Your task to perform on an android device: see tabs open on other devices in the chrome app Image 0: 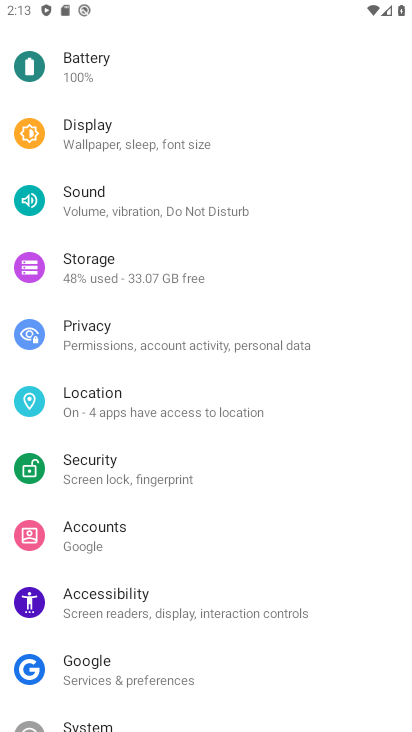
Step 0: press home button
Your task to perform on an android device: see tabs open on other devices in the chrome app Image 1: 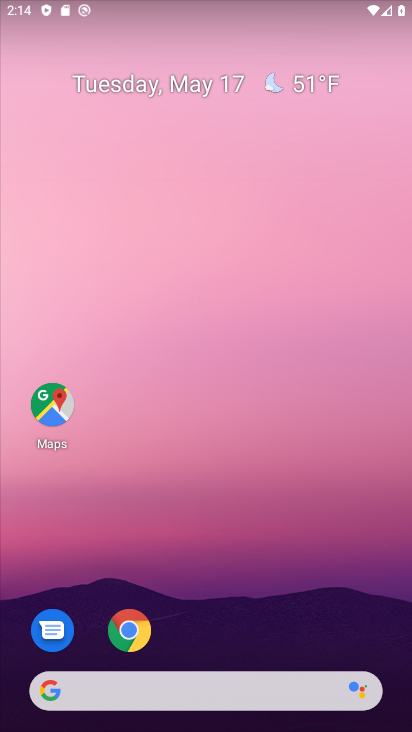
Step 1: click (133, 641)
Your task to perform on an android device: see tabs open on other devices in the chrome app Image 2: 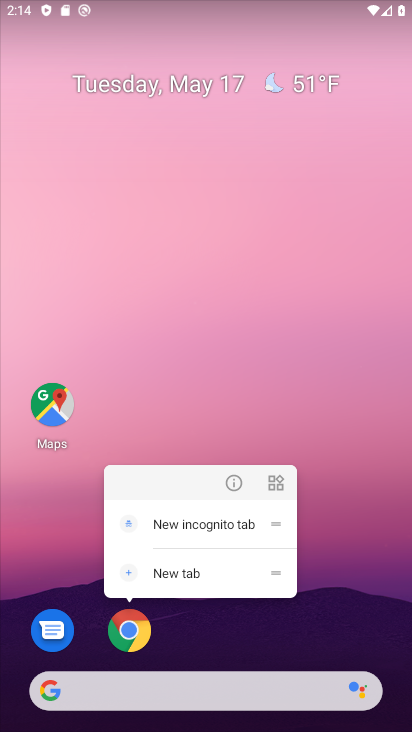
Step 2: click (125, 616)
Your task to perform on an android device: see tabs open on other devices in the chrome app Image 3: 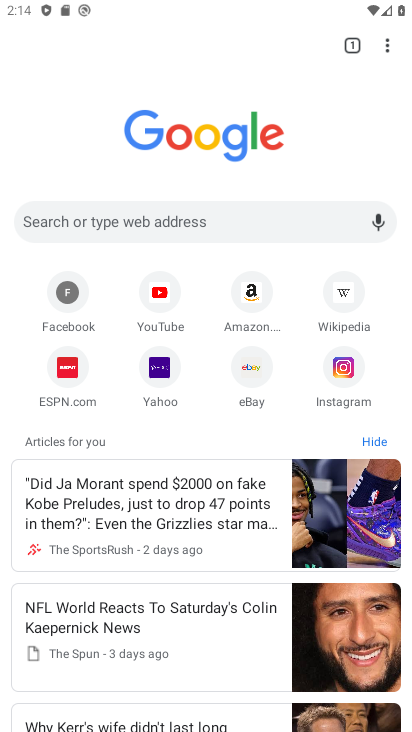
Step 3: click (393, 50)
Your task to perform on an android device: see tabs open on other devices in the chrome app Image 4: 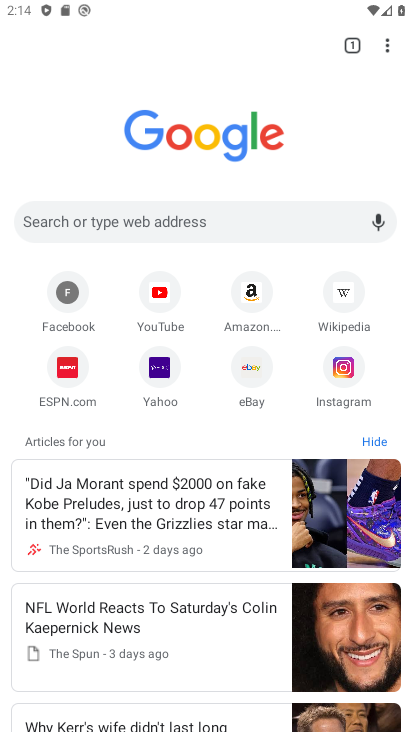
Step 4: click (386, 44)
Your task to perform on an android device: see tabs open on other devices in the chrome app Image 5: 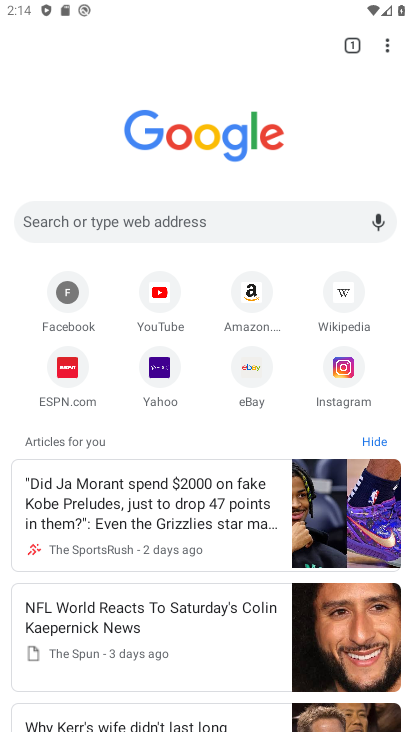
Step 5: click (388, 47)
Your task to perform on an android device: see tabs open on other devices in the chrome app Image 6: 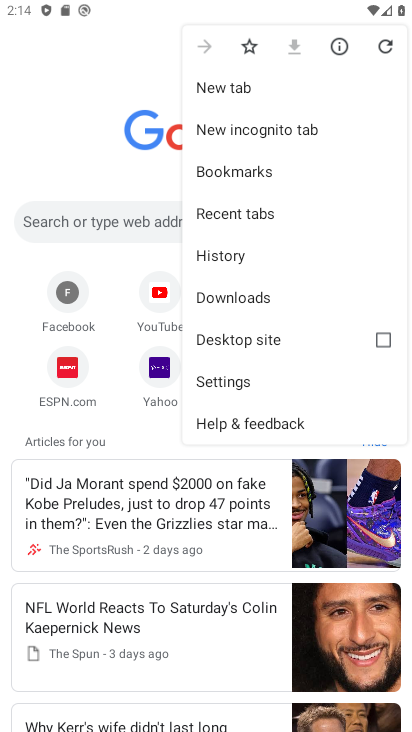
Step 6: click (242, 207)
Your task to perform on an android device: see tabs open on other devices in the chrome app Image 7: 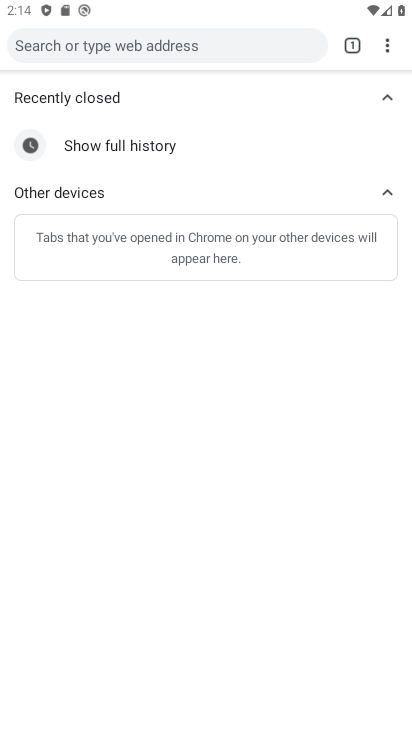
Step 7: task complete